Your task to perform on an android device: Go to Amazon Image 0: 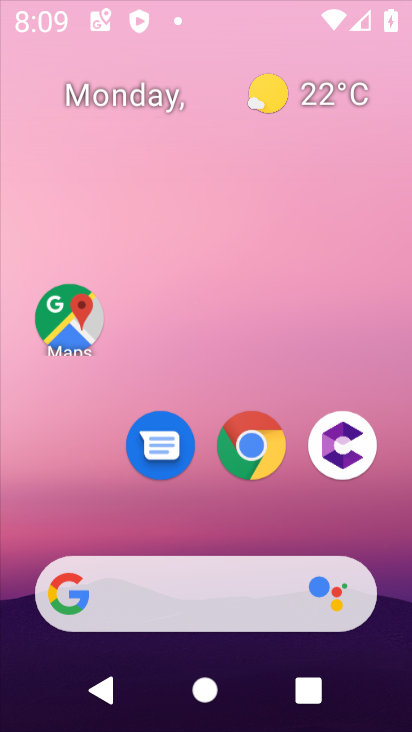
Step 0: press home button
Your task to perform on an android device: Go to Amazon Image 1: 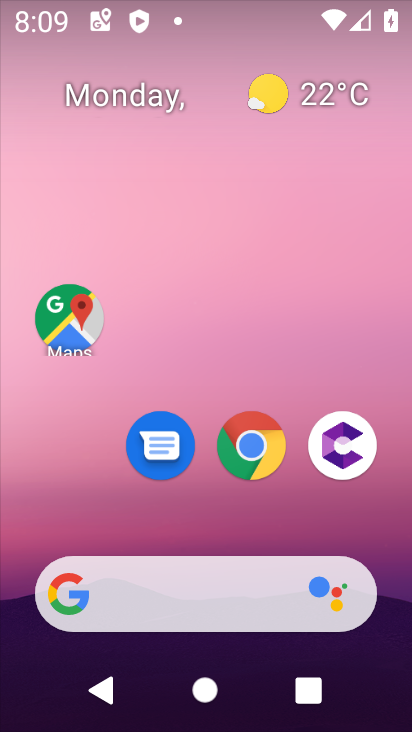
Step 1: click (59, 616)
Your task to perform on an android device: Go to Amazon Image 2: 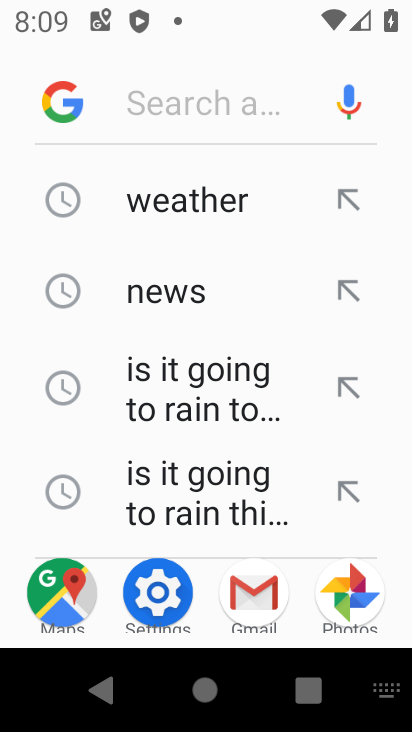
Step 2: type "Amazon"
Your task to perform on an android device: Go to Amazon Image 3: 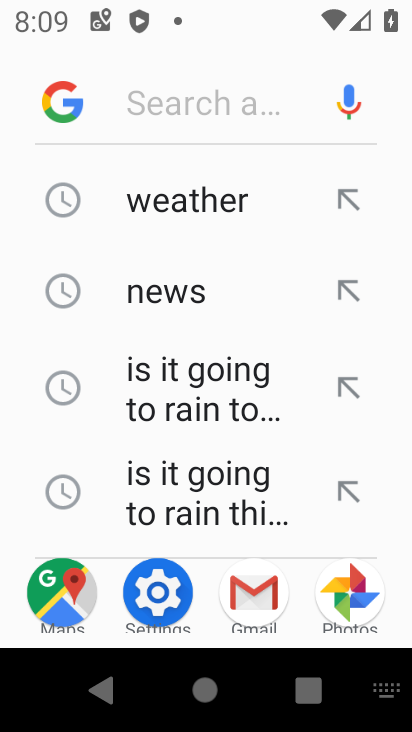
Step 3: click (211, 107)
Your task to perform on an android device: Go to Amazon Image 4: 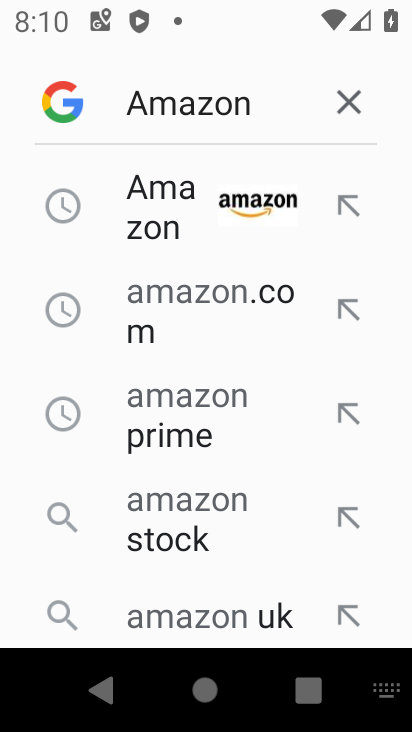
Step 4: click (198, 204)
Your task to perform on an android device: Go to Amazon Image 5: 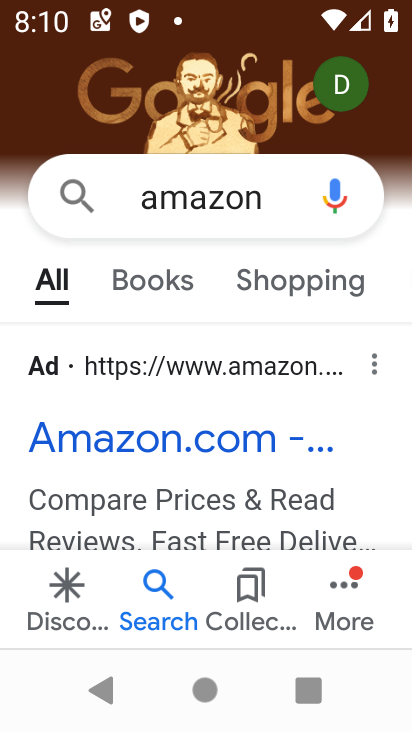
Step 5: click (148, 446)
Your task to perform on an android device: Go to Amazon Image 6: 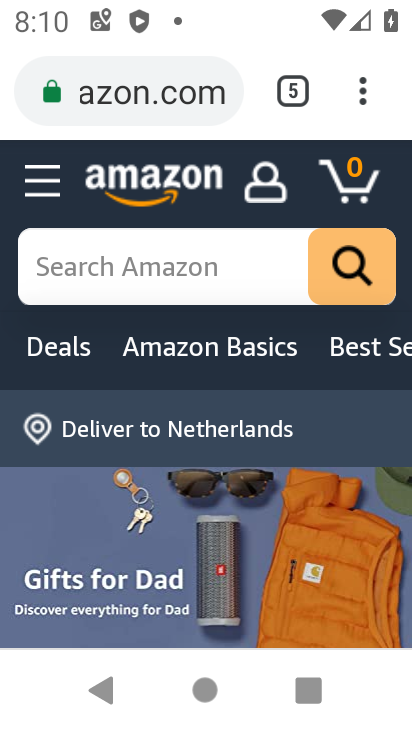
Step 6: task complete